Your task to perform on an android device: When is my next appointment? Image 0: 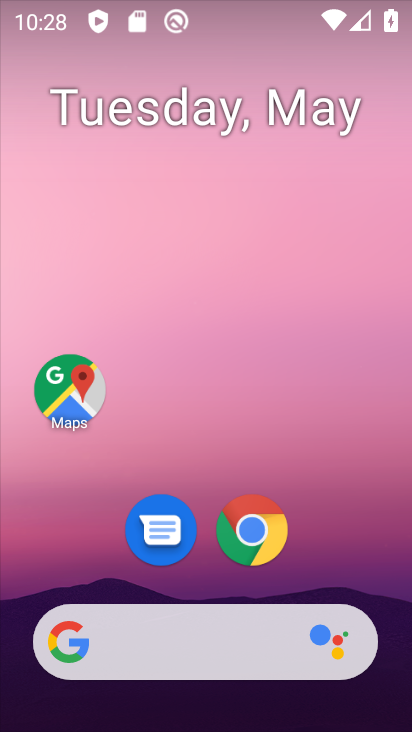
Step 0: click (403, 346)
Your task to perform on an android device: When is my next appointment? Image 1: 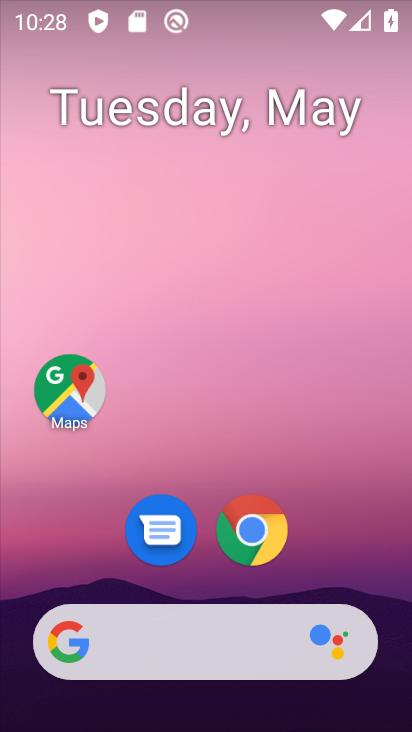
Step 1: drag from (340, 546) to (216, 283)
Your task to perform on an android device: When is my next appointment? Image 2: 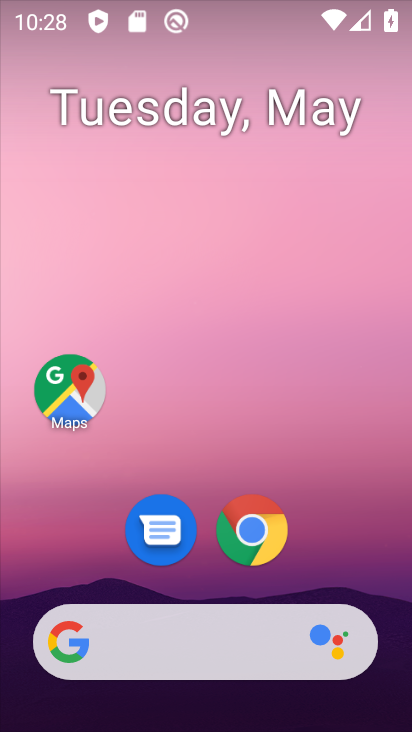
Step 2: drag from (308, 576) to (146, 150)
Your task to perform on an android device: When is my next appointment? Image 3: 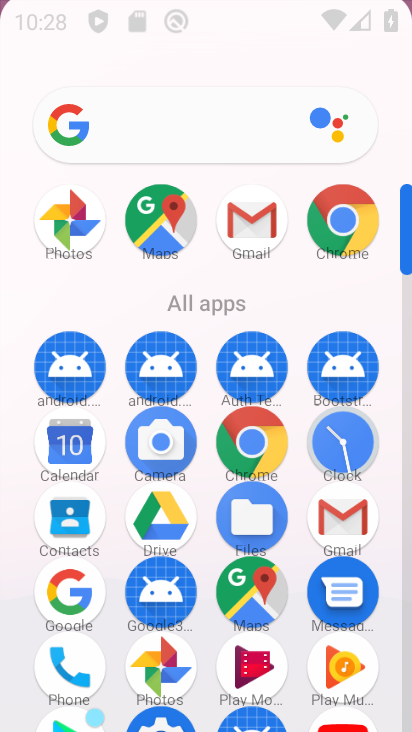
Step 3: drag from (315, 449) to (221, 152)
Your task to perform on an android device: When is my next appointment? Image 4: 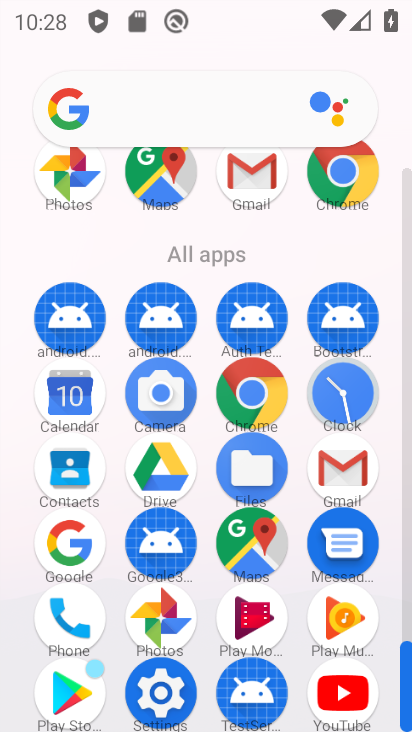
Step 4: click (64, 389)
Your task to perform on an android device: When is my next appointment? Image 5: 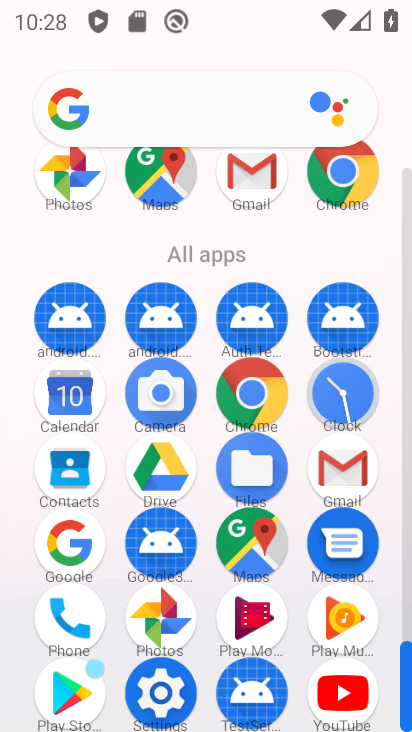
Step 5: click (63, 388)
Your task to perform on an android device: When is my next appointment? Image 6: 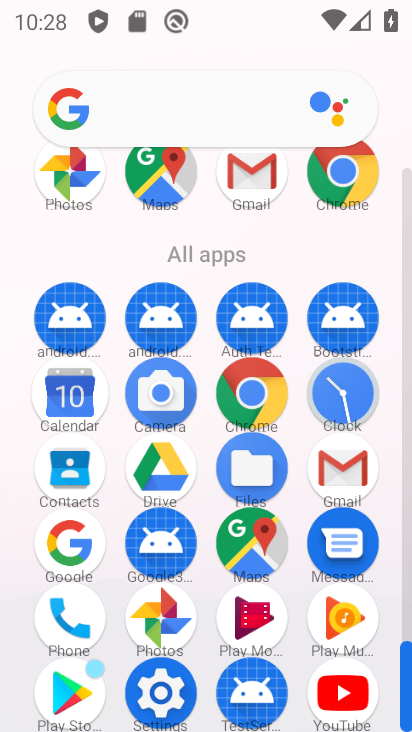
Step 6: click (63, 388)
Your task to perform on an android device: When is my next appointment? Image 7: 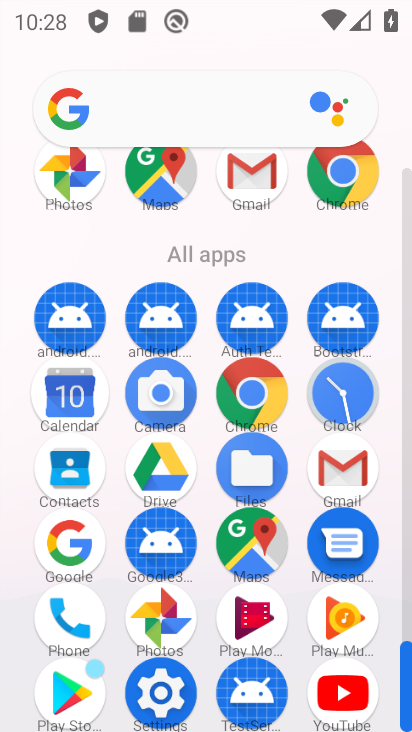
Step 7: click (64, 389)
Your task to perform on an android device: When is my next appointment? Image 8: 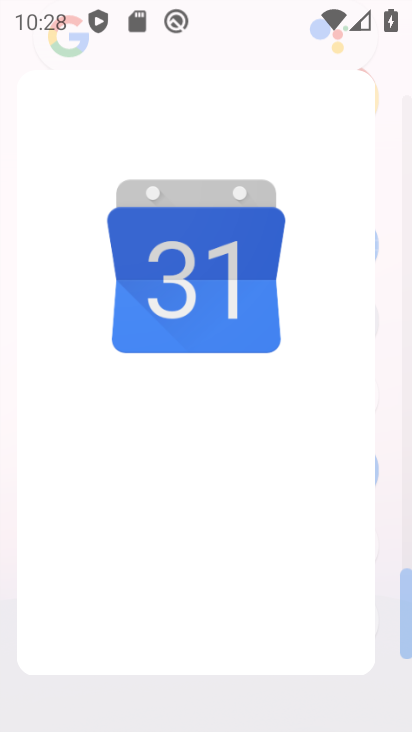
Step 8: click (64, 391)
Your task to perform on an android device: When is my next appointment? Image 9: 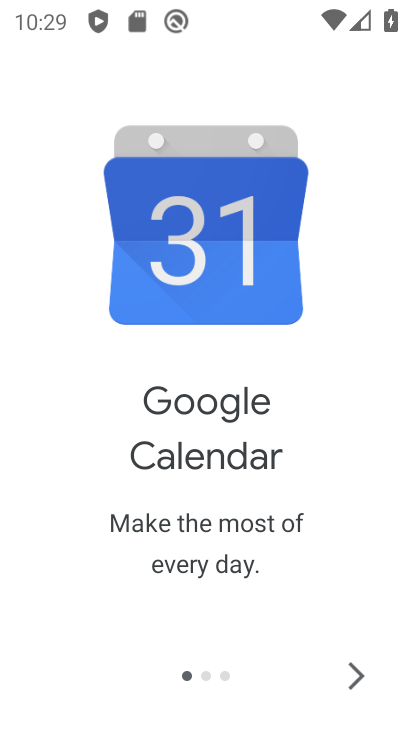
Step 9: click (361, 666)
Your task to perform on an android device: When is my next appointment? Image 10: 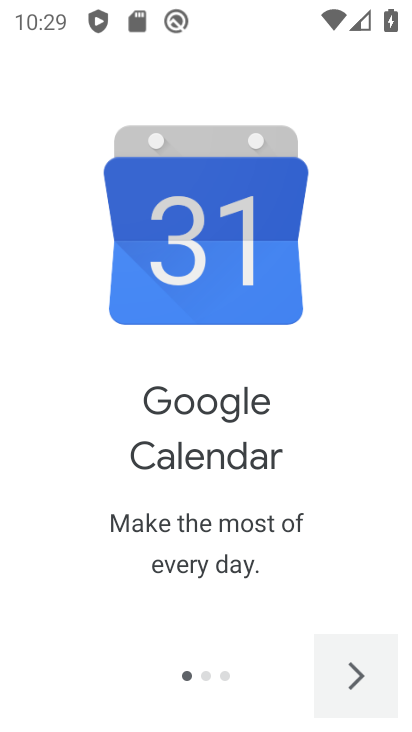
Step 10: click (360, 666)
Your task to perform on an android device: When is my next appointment? Image 11: 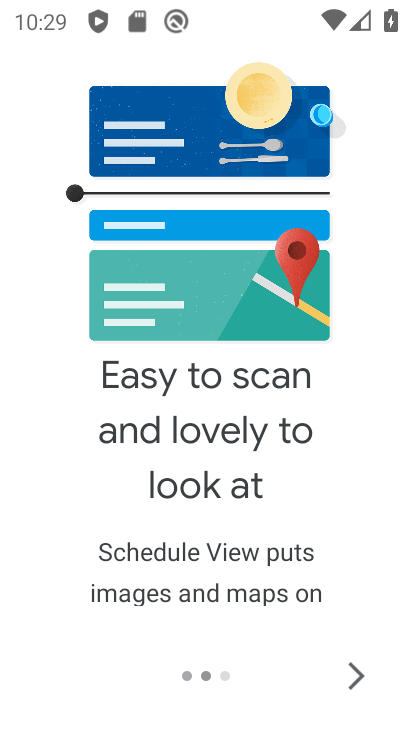
Step 11: click (360, 666)
Your task to perform on an android device: When is my next appointment? Image 12: 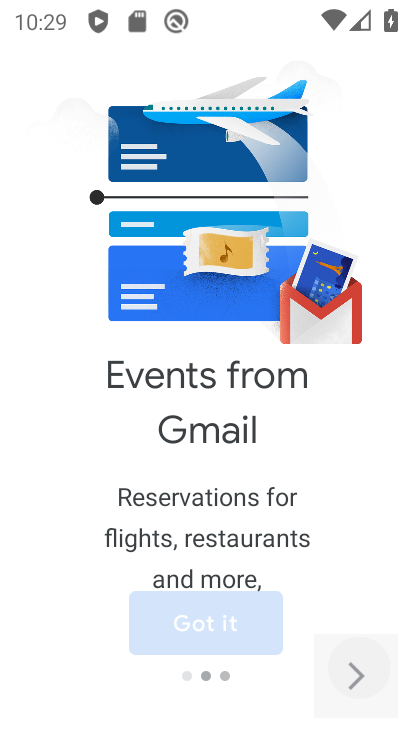
Step 12: click (360, 666)
Your task to perform on an android device: When is my next appointment? Image 13: 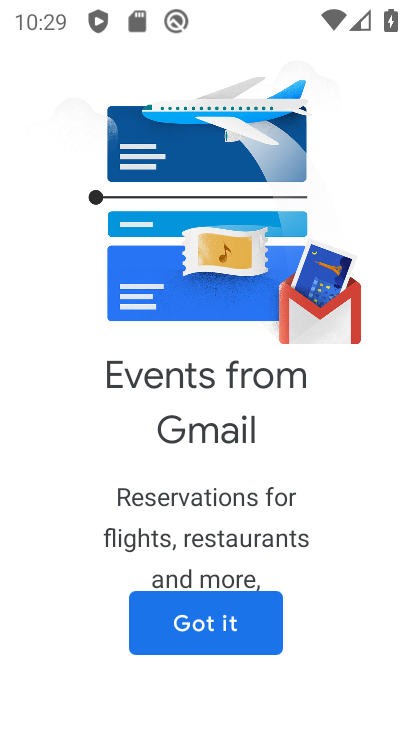
Step 13: click (360, 666)
Your task to perform on an android device: When is my next appointment? Image 14: 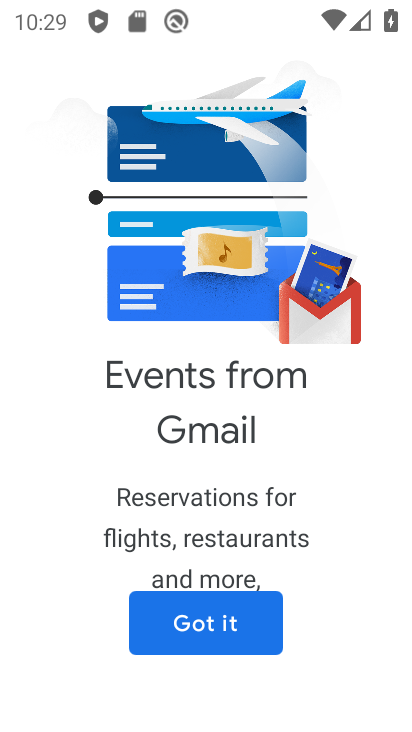
Step 14: click (196, 626)
Your task to perform on an android device: When is my next appointment? Image 15: 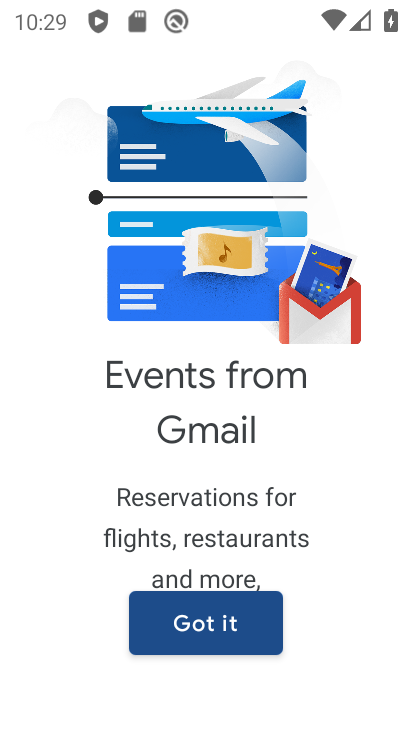
Step 15: click (196, 626)
Your task to perform on an android device: When is my next appointment? Image 16: 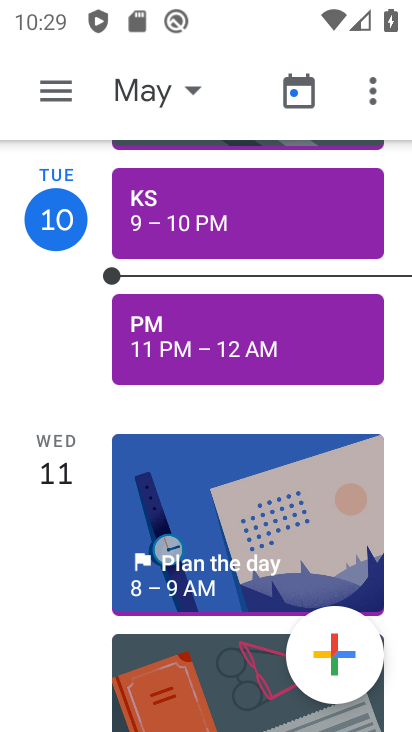
Step 16: drag from (226, 383) to (243, 264)
Your task to perform on an android device: When is my next appointment? Image 17: 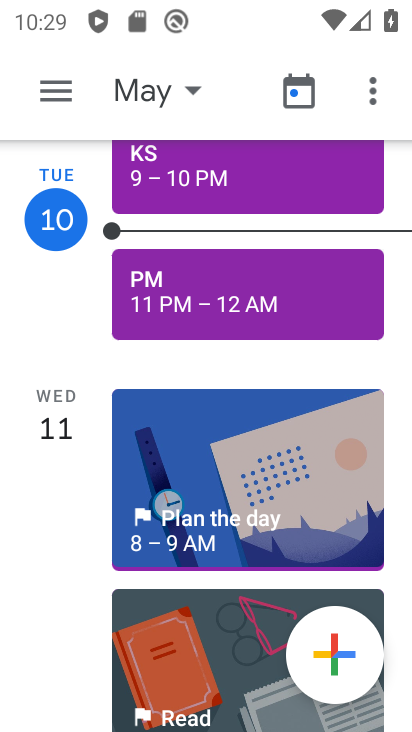
Step 17: drag from (205, 536) to (182, 141)
Your task to perform on an android device: When is my next appointment? Image 18: 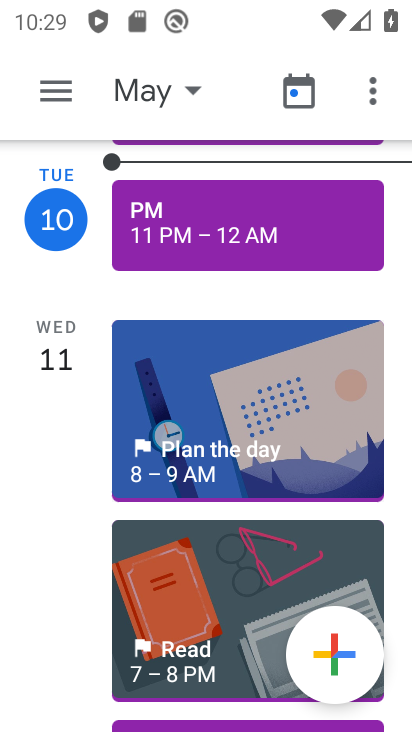
Step 18: drag from (161, 467) to (150, 165)
Your task to perform on an android device: When is my next appointment? Image 19: 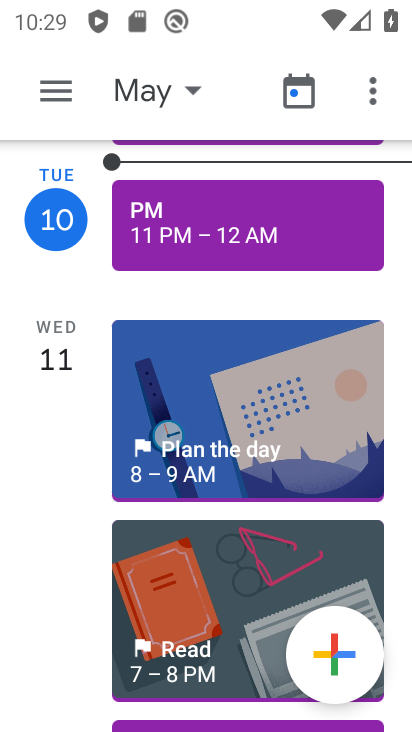
Step 19: drag from (139, 559) to (128, 142)
Your task to perform on an android device: When is my next appointment? Image 20: 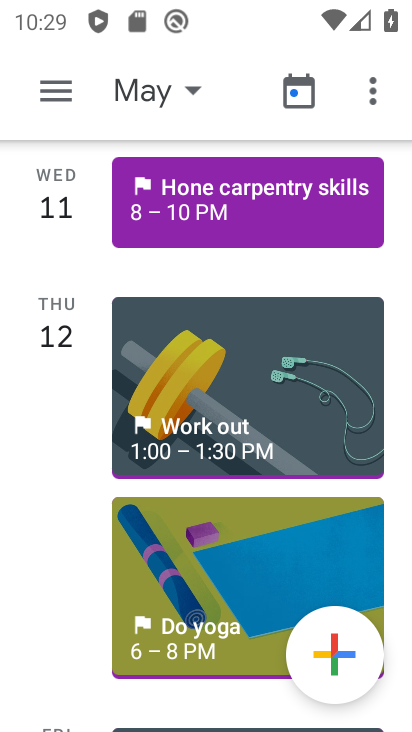
Step 20: drag from (127, 530) to (127, 219)
Your task to perform on an android device: When is my next appointment? Image 21: 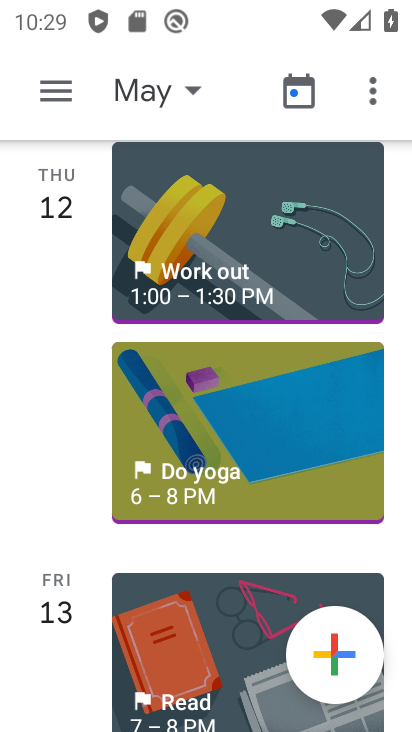
Step 21: drag from (177, 490) to (171, 305)
Your task to perform on an android device: When is my next appointment? Image 22: 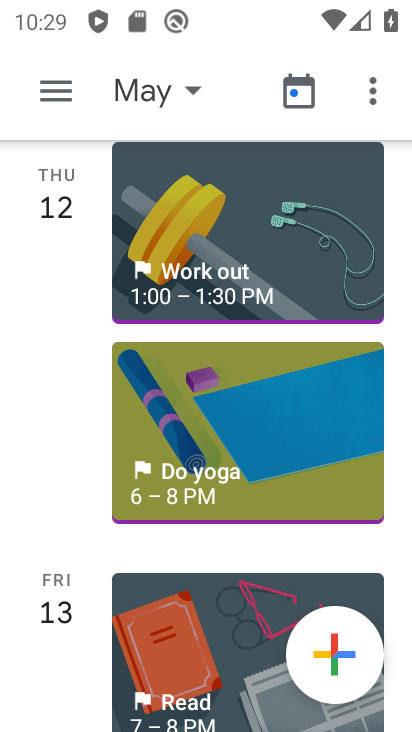
Step 22: drag from (197, 607) to (151, 296)
Your task to perform on an android device: When is my next appointment? Image 23: 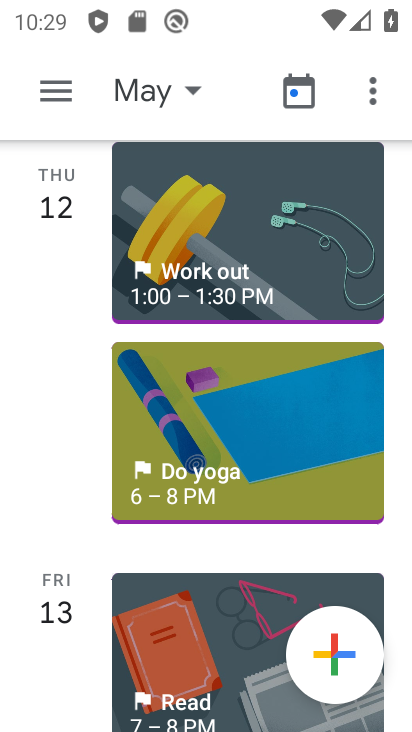
Step 23: drag from (183, 543) to (168, 207)
Your task to perform on an android device: When is my next appointment? Image 24: 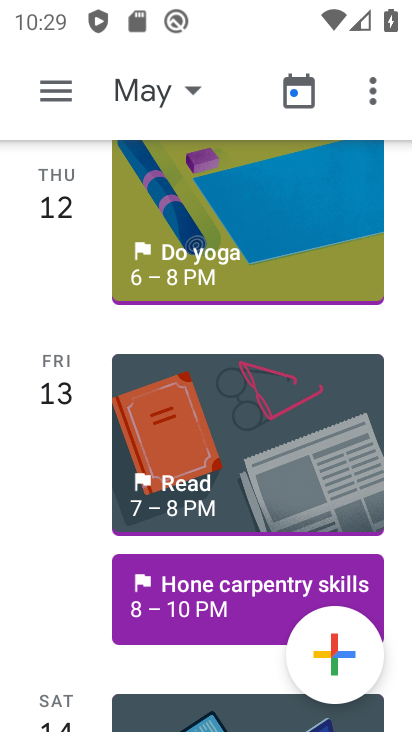
Step 24: drag from (198, 502) to (272, 203)
Your task to perform on an android device: When is my next appointment? Image 25: 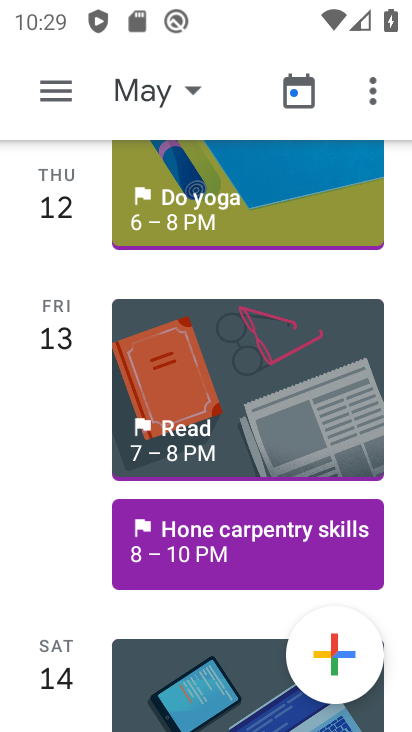
Step 25: click (238, 221)
Your task to perform on an android device: When is my next appointment? Image 26: 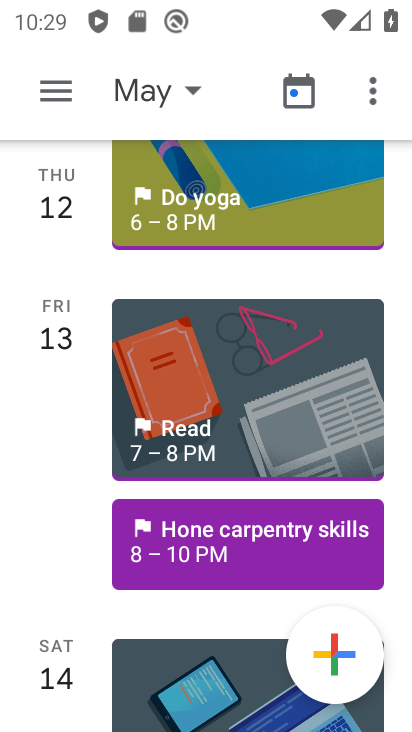
Step 26: drag from (160, 538) to (132, 213)
Your task to perform on an android device: When is my next appointment? Image 27: 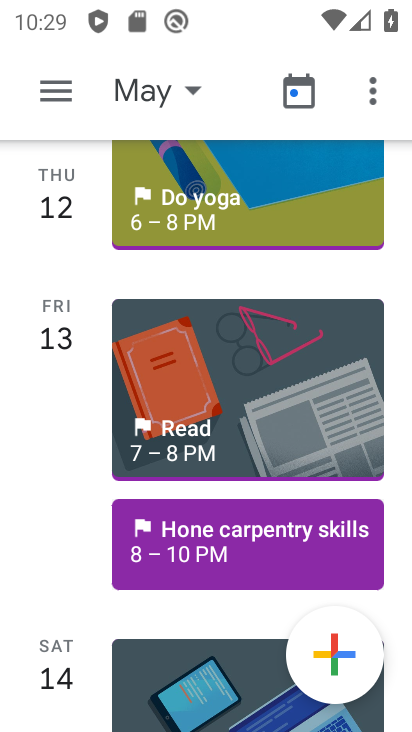
Step 27: drag from (247, 534) to (167, 216)
Your task to perform on an android device: When is my next appointment? Image 28: 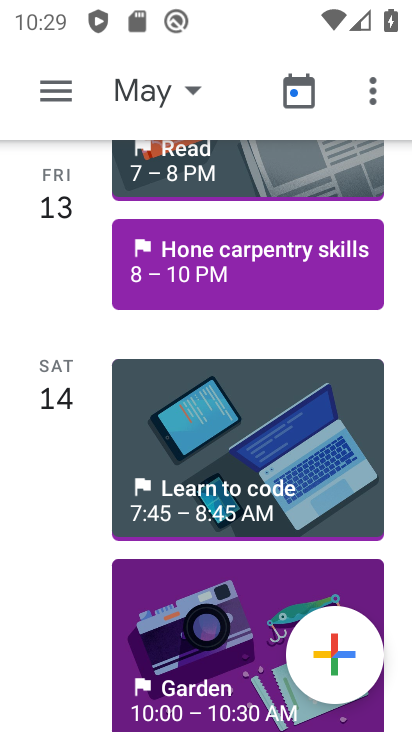
Step 28: drag from (175, 437) to (128, 53)
Your task to perform on an android device: When is my next appointment? Image 29: 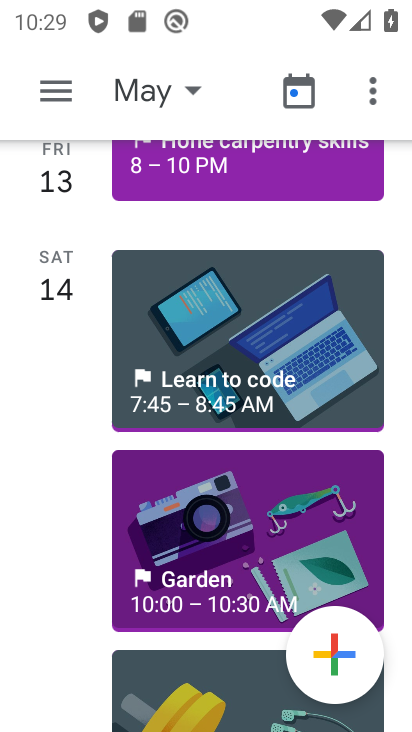
Step 29: drag from (170, 69) to (133, 105)
Your task to perform on an android device: When is my next appointment? Image 30: 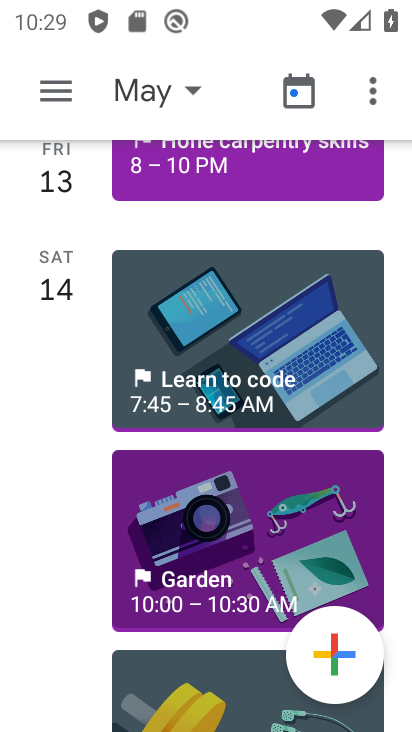
Step 30: drag from (139, 553) to (162, 114)
Your task to perform on an android device: When is my next appointment? Image 31: 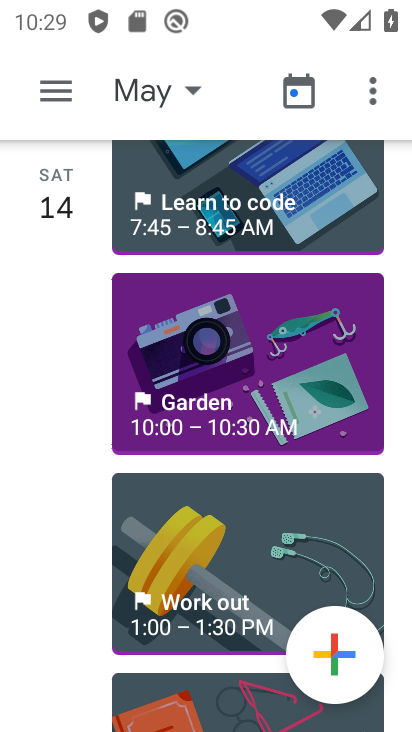
Step 31: drag from (233, 583) to (191, 145)
Your task to perform on an android device: When is my next appointment? Image 32: 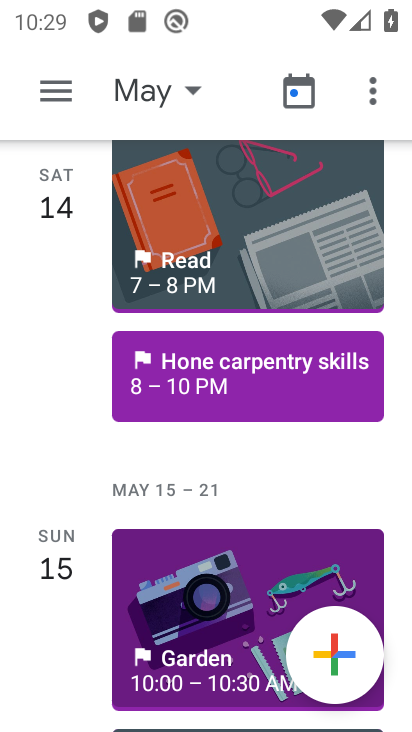
Step 32: drag from (178, 472) to (159, 233)
Your task to perform on an android device: When is my next appointment? Image 33: 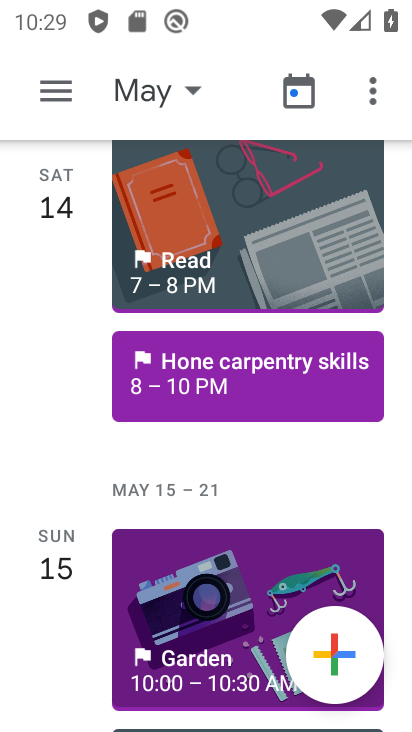
Step 33: drag from (178, 530) to (162, 239)
Your task to perform on an android device: When is my next appointment? Image 34: 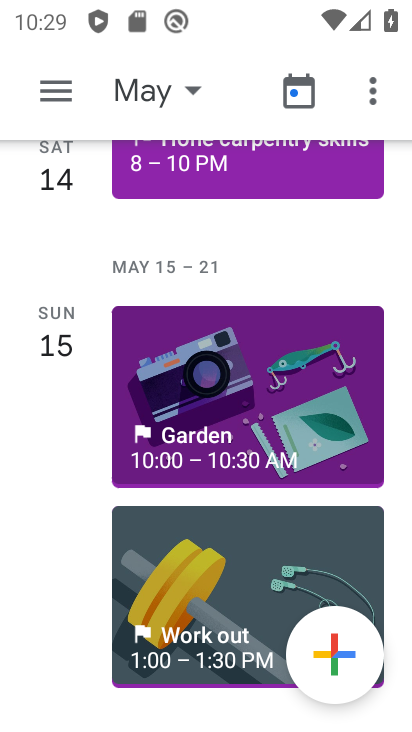
Step 34: drag from (171, 560) to (164, 173)
Your task to perform on an android device: When is my next appointment? Image 35: 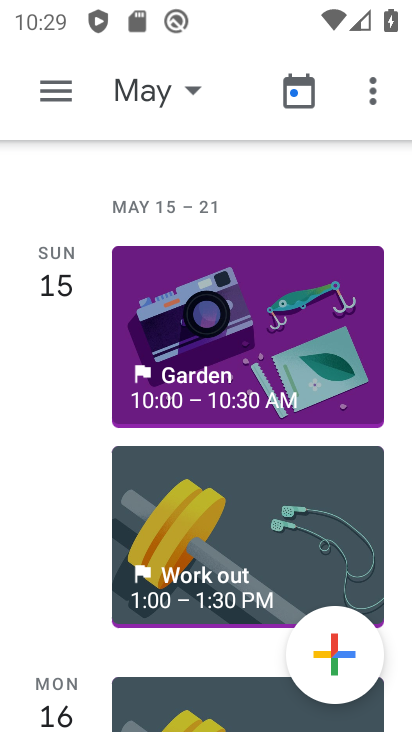
Step 35: drag from (162, 440) to (190, 87)
Your task to perform on an android device: When is my next appointment? Image 36: 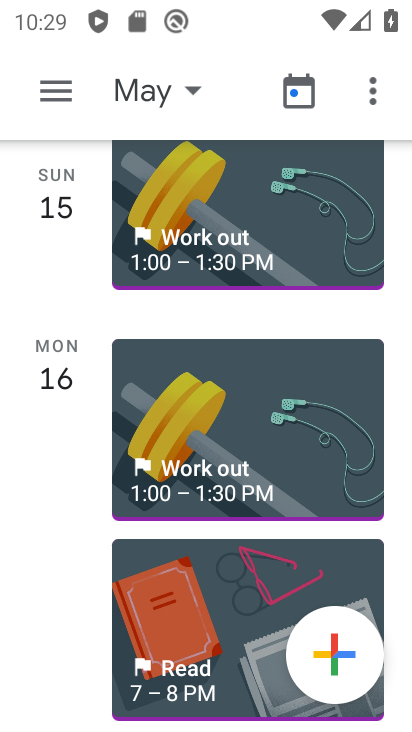
Step 36: drag from (203, 344) to (205, 217)
Your task to perform on an android device: When is my next appointment? Image 37: 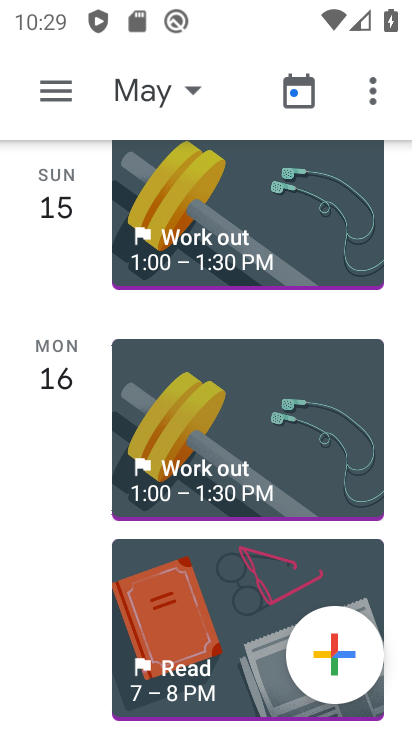
Step 37: drag from (190, 481) to (241, 1)
Your task to perform on an android device: When is my next appointment? Image 38: 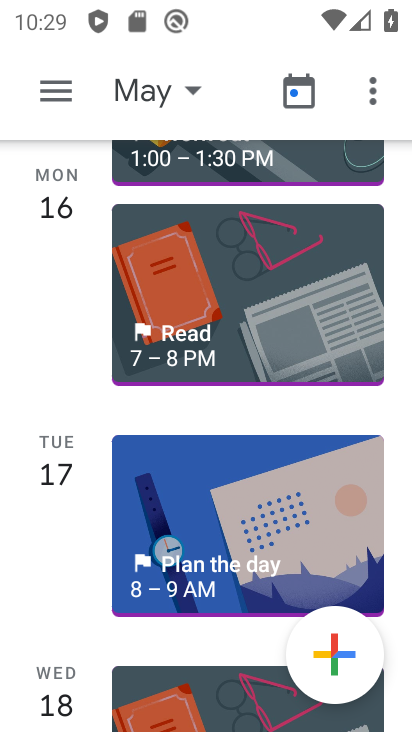
Step 38: drag from (229, 504) to (223, 178)
Your task to perform on an android device: When is my next appointment? Image 39: 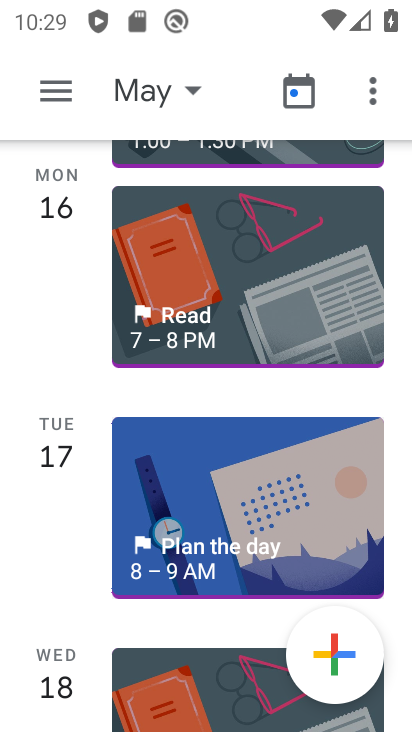
Step 39: drag from (223, 456) to (308, 144)
Your task to perform on an android device: When is my next appointment? Image 40: 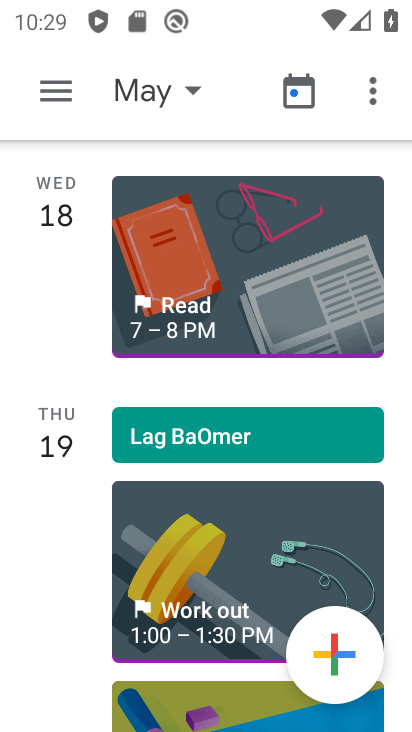
Step 40: drag from (286, 495) to (268, 163)
Your task to perform on an android device: When is my next appointment? Image 41: 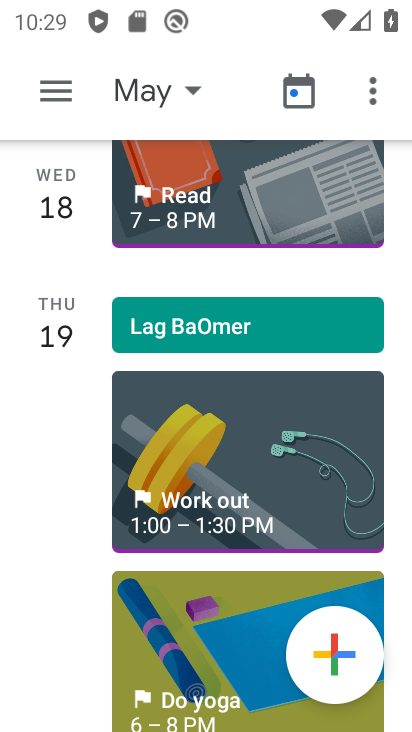
Step 41: drag from (213, 513) to (188, 193)
Your task to perform on an android device: When is my next appointment? Image 42: 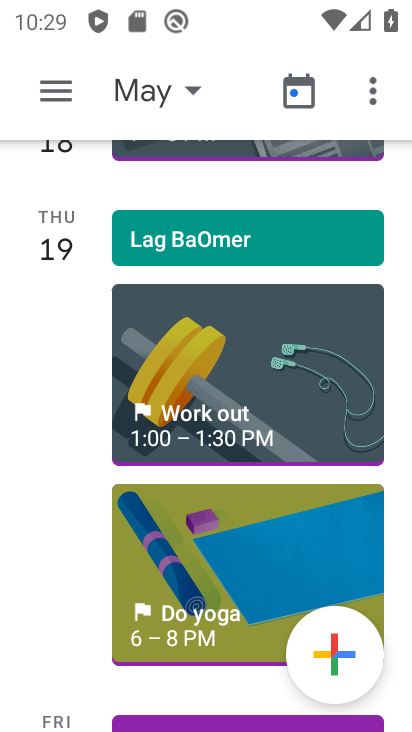
Step 42: drag from (181, 394) to (181, 242)
Your task to perform on an android device: When is my next appointment? Image 43: 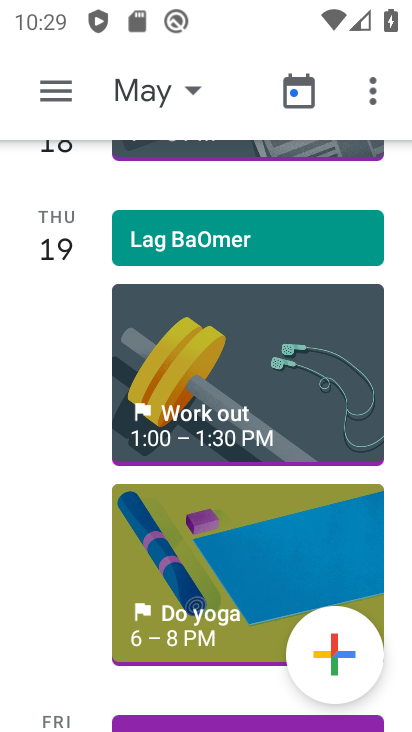
Step 43: drag from (188, 547) to (234, 152)
Your task to perform on an android device: When is my next appointment? Image 44: 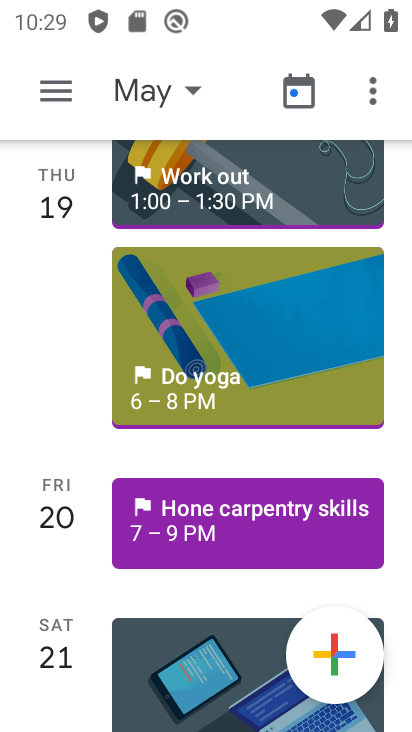
Step 44: drag from (215, 480) to (165, 126)
Your task to perform on an android device: When is my next appointment? Image 45: 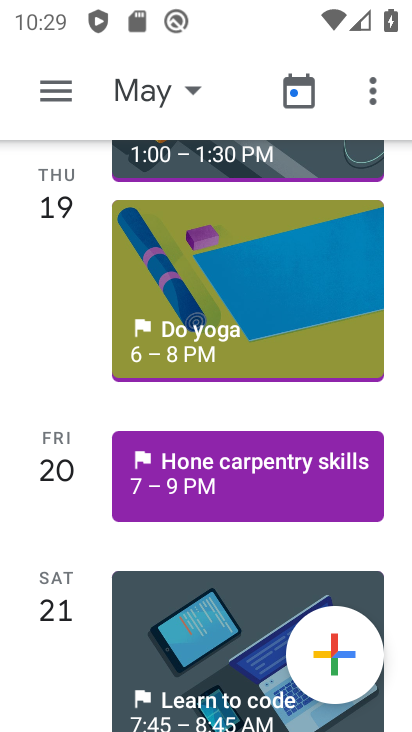
Step 45: drag from (187, 453) to (164, 181)
Your task to perform on an android device: When is my next appointment? Image 46: 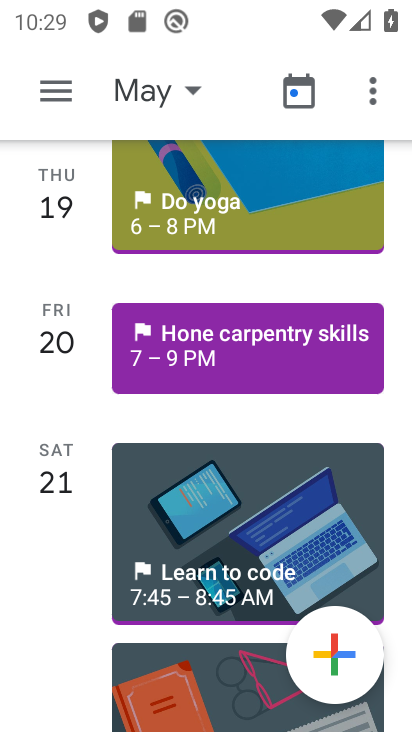
Step 46: drag from (167, 555) to (220, 130)
Your task to perform on an android device: When is my next appointment? Image 47: 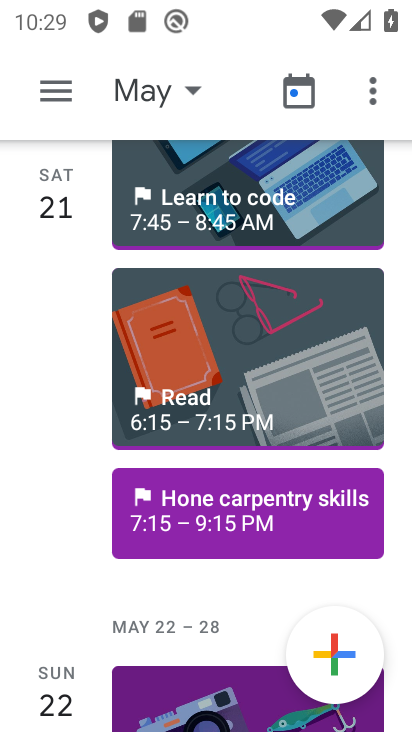
Step 47: drag from (210, 527) to (198, 99)
Your task to perform on an android device: When is my next appointment? Image 48: 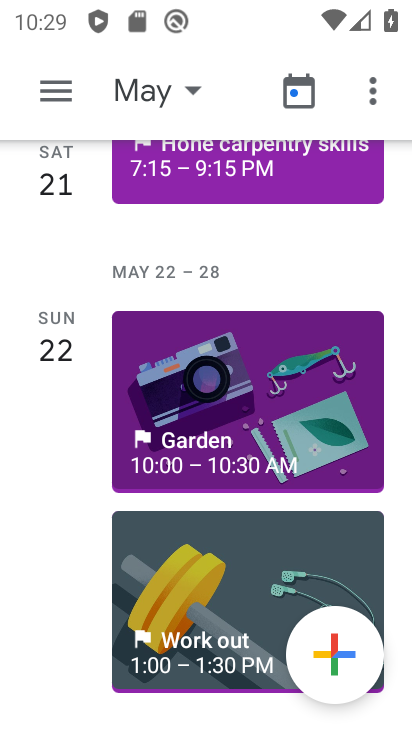
Step 48: drag from (223, 466) to (209, 79)
Your task to perform on an android device: When is my next appointment? Image 49: 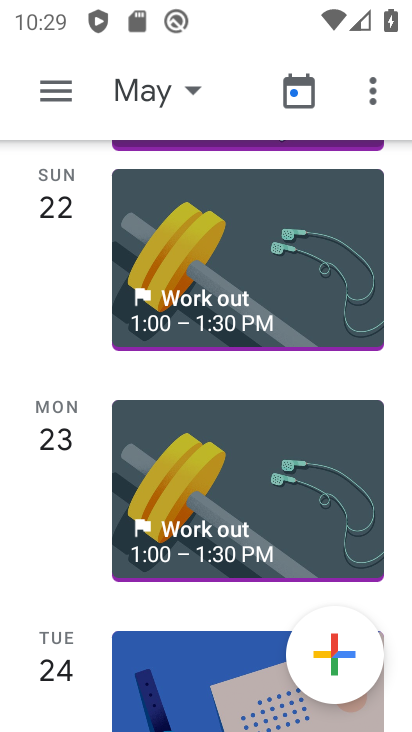
Step 49: drag from (207, 514) to (174, 168)
Your task to perform on an android device: When is my next appointment? Image 50: 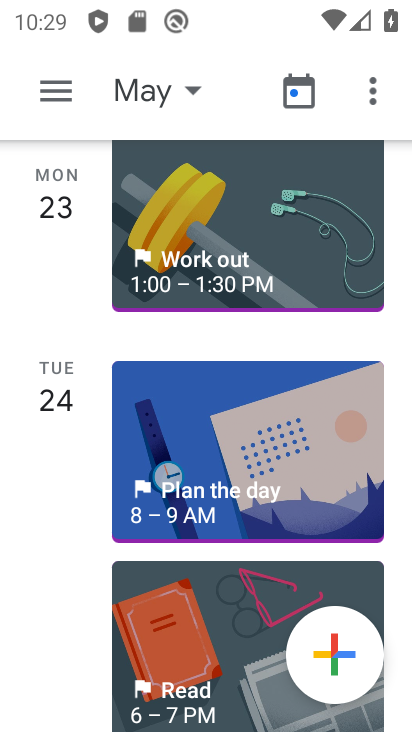
Step 50: drag from (193, 507) to (201, 193)
Your task to perform on an android device: When is my next appointment? Image 51: 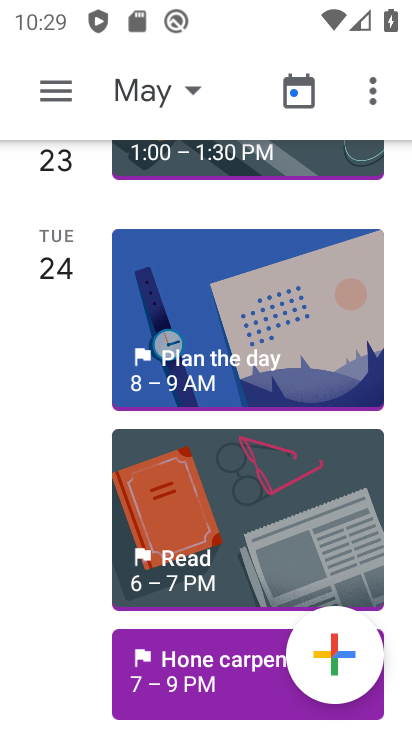
Step 51: drag from (186, 535) to (138, 74)
Your task to perform on an android device: When is my next appointment? Image 52: 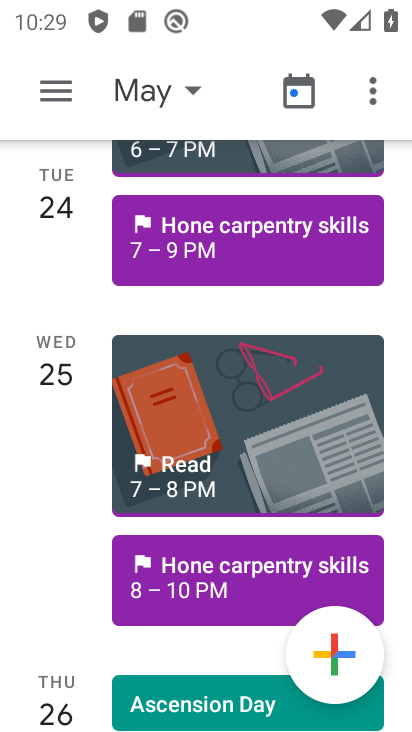
Step 52: drag from (138, 552) to (109, 157)
Your task to perform on an android device: When is my next appointment? Image 53: 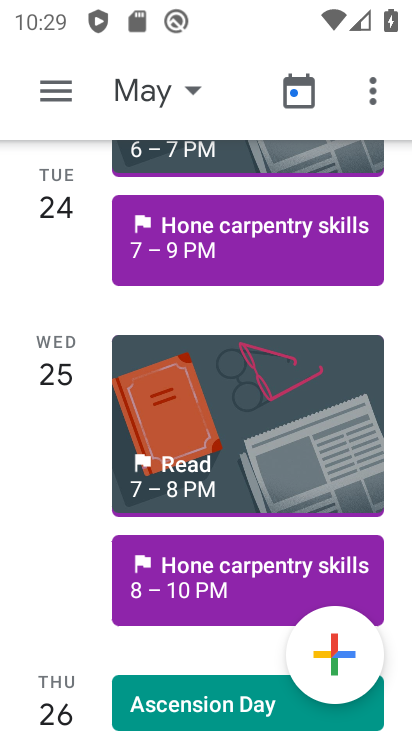
Step 53: drag from (123, 413) to (91, 182)
Your task to perform on an android device: When is my next appointment? Image 54: 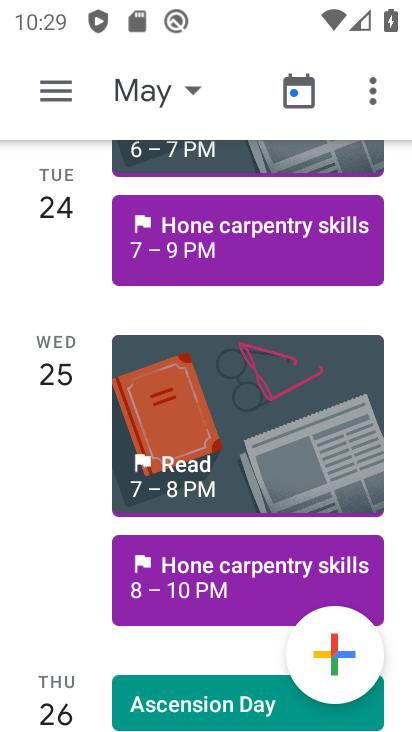
Step 54: drag from (171, 519) to (201, 161)
Your task to perform on an android device: When is my next appointment? Image 55: 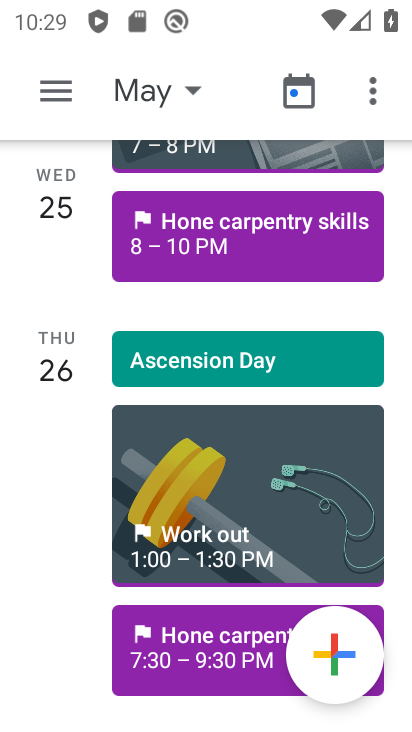
Step 55: drag from (192, 593) to (121, 120)
Your task to perform on an android device: When is my next appointment? Image 56: 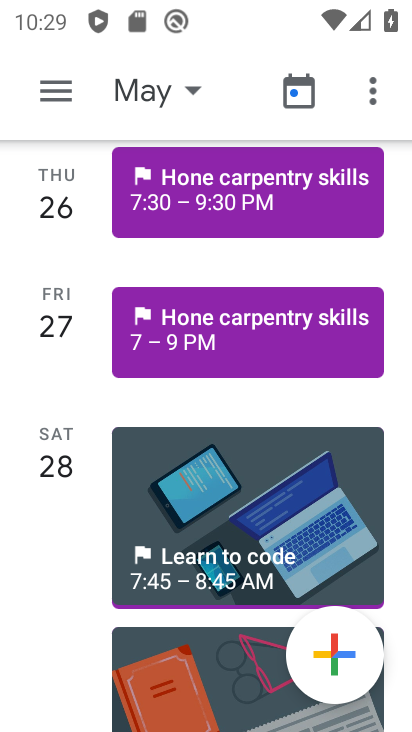
Step 56: drag from (144, 417) to (150, 149)
Your task to perform on an android device: When is my next appointment? Image 57: 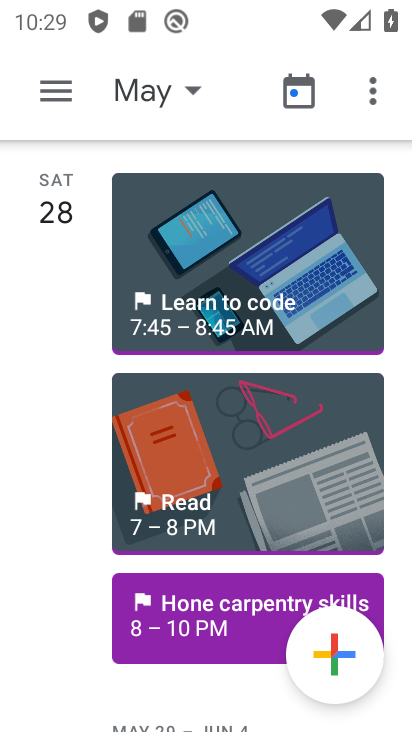
Step 57: drag from (223, 281) to (227, 111)
Your task to perform on an android device: When is my next appointment? Image 58: 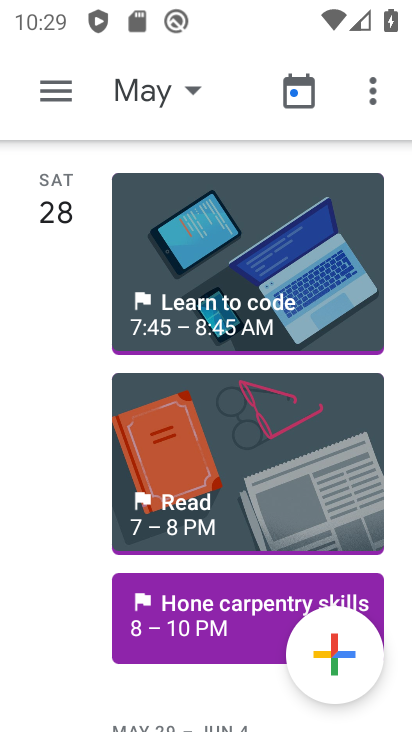
Step 58: click (195, 166)
Your task to perform on an android device: When is my next appointment? Image 59: 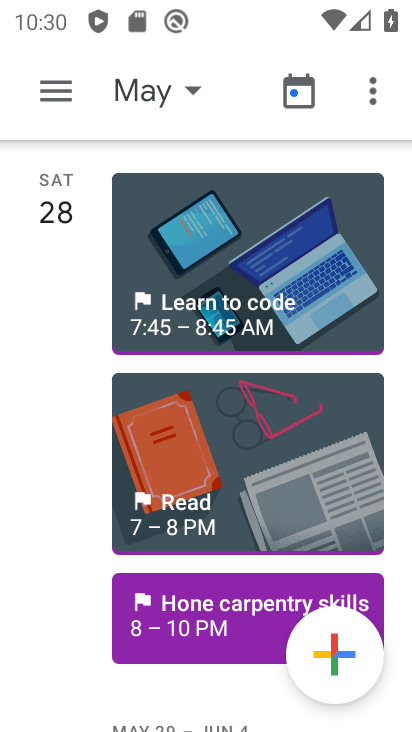
Step 59: drag from (158, 419) to (141, 182)
Your task to perform on an android device: When is my next appointment? Image 60: 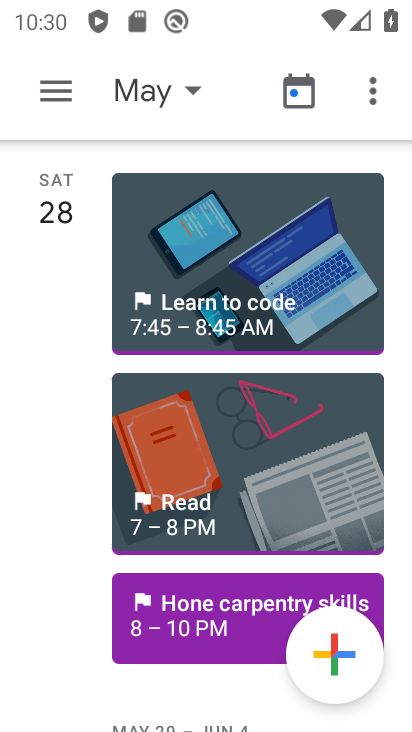
Step 60: drag from (176, 262) to (247, 600)
Your task to perform on an android device: When is my next appointment? Image 61: 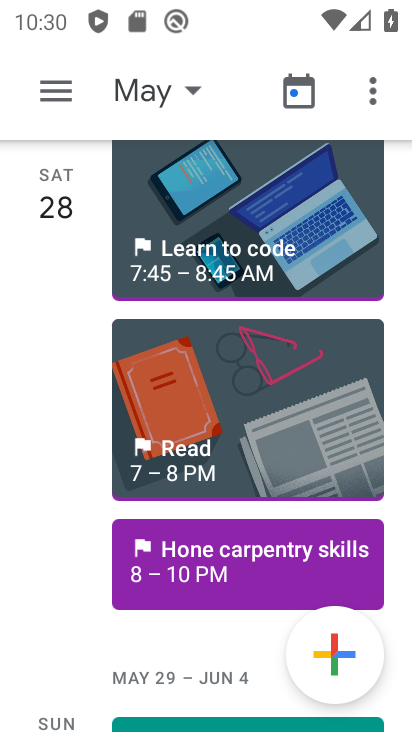
Step 61: drag from (227, 422) to (273, 481)
Your task to perform on an android device: When is my next appointment? Image 62: 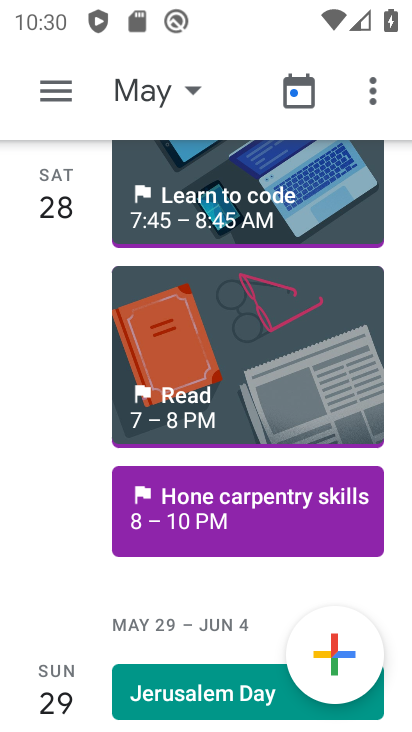
Step 62: drag from (243, 274) to (305, 484)
Your task to perform on an android device: When is my next appointment? Image 63: 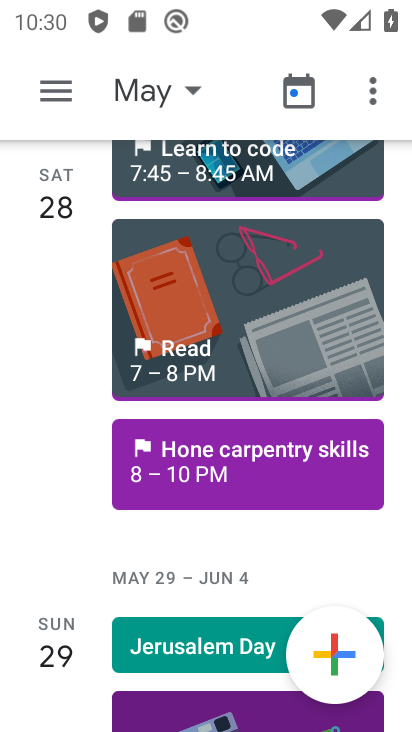
Step 63: click (188, 329)
Your task to perform on an android device: When is my next appointment? Image 64: 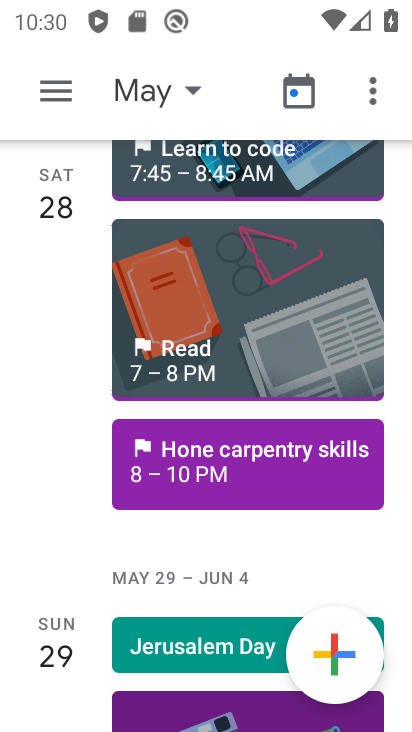
Step 64: click (188, 329)
Your task to perform on an android device: When is my next appointment? Image 65: 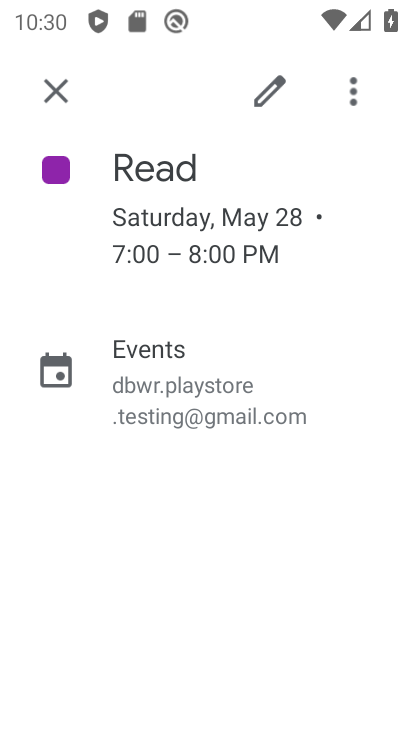
Step 65: task complete